Your task to perform on an android device: change timer sound Image 0: 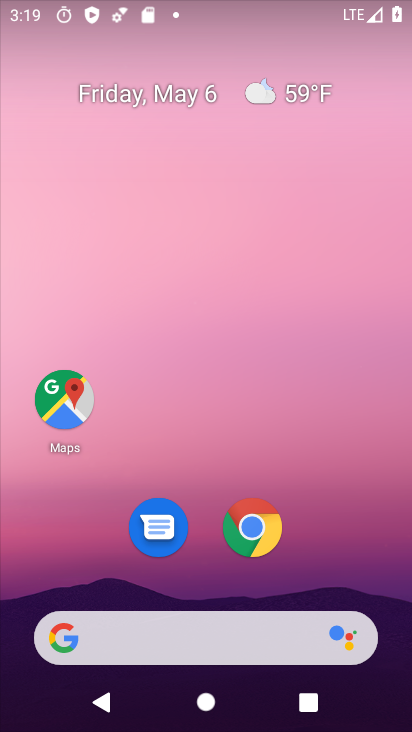
Step 0: drag from (309, 527) to (260, 169)
Your task to perform on an android device: change timer sound Image 1: 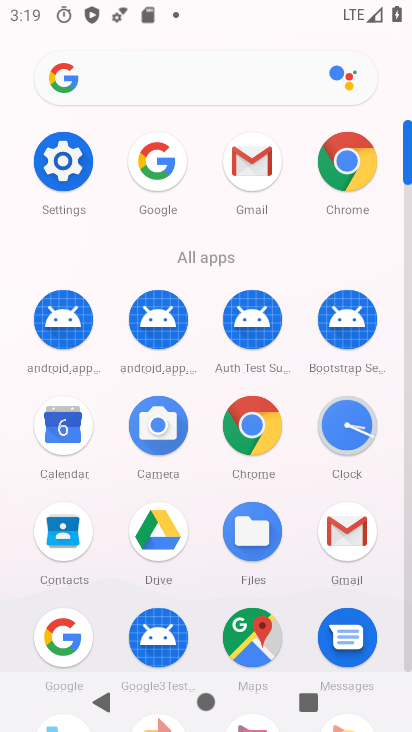
Step 1: click (346, 438)
Your task to perform on an android device: change timer sound Image 2: 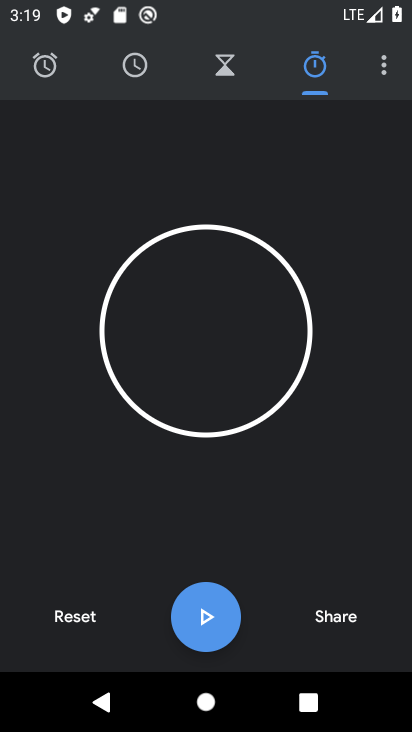
Step 2: click (387, 72)
Your task to perform on an android device: change timer sound Image 3: 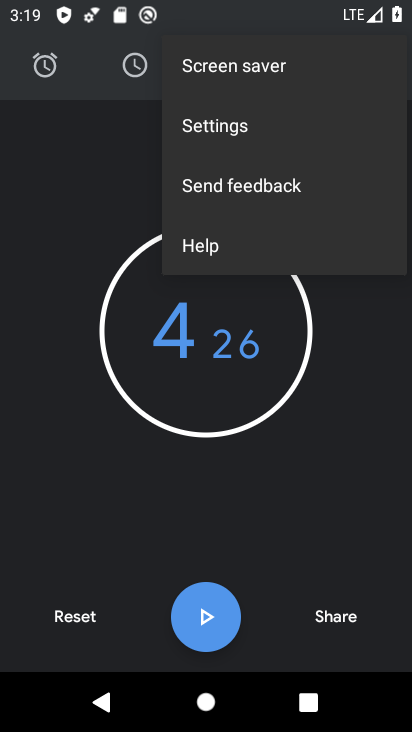
Step 3: click (211, 135)
Your task to perform on an android device: change timer sound Image 4: 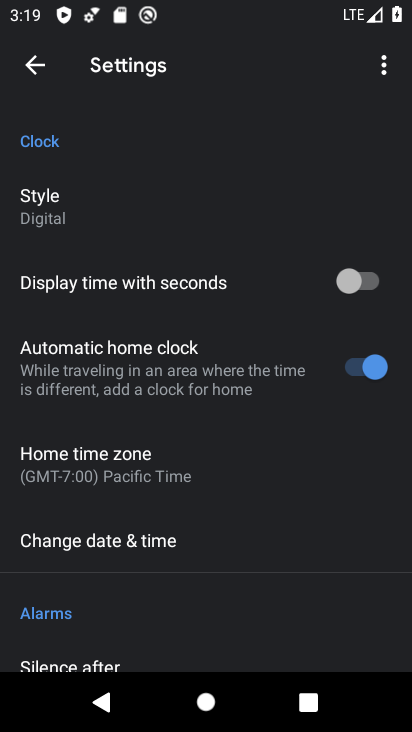
Step 4: drag from (241, 572) to (223, 169)
Your task to perform on an android device: change timer sound Image 5: 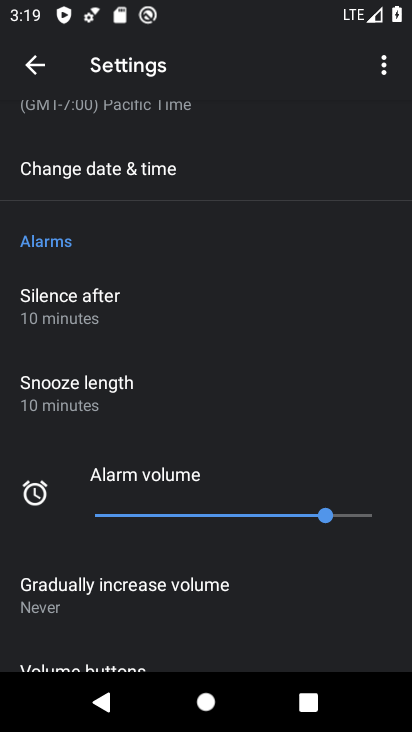
Step 5: drag from (238, 563) to (237, 159)
Your task to perform on an android device: change timer sound Image 6: 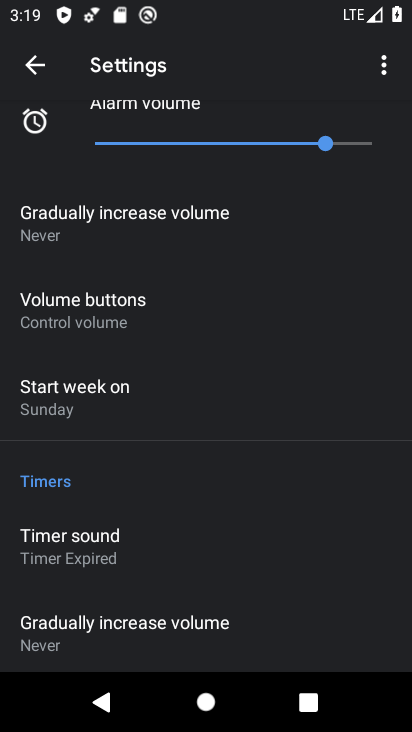
Step 6: drag from (213, 659) to (192, 544)
Your task to perform on an android device: change timer sound Image 7: 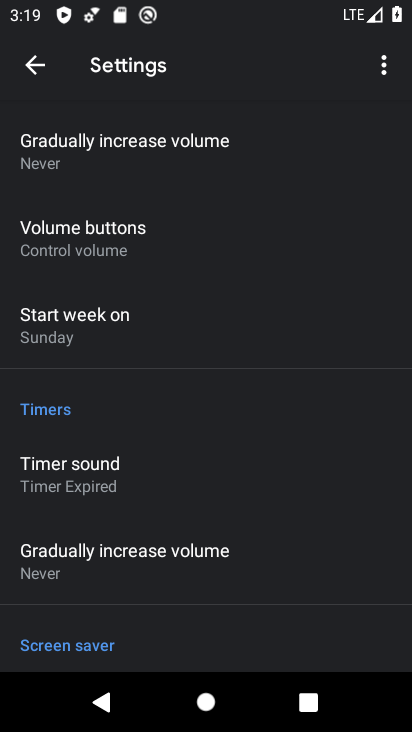
Step 7: click (106, 481)
Your task to perform on an android device: change timer sound Image 8: 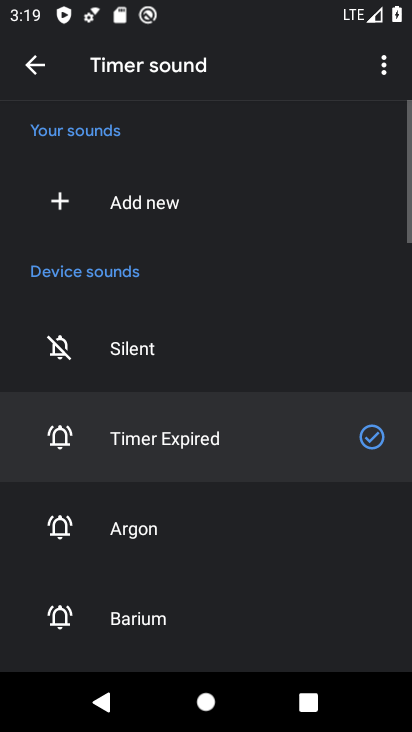
Step 8: click (140, 578)
Your task to perform on an android device: change timer sound Image 9: 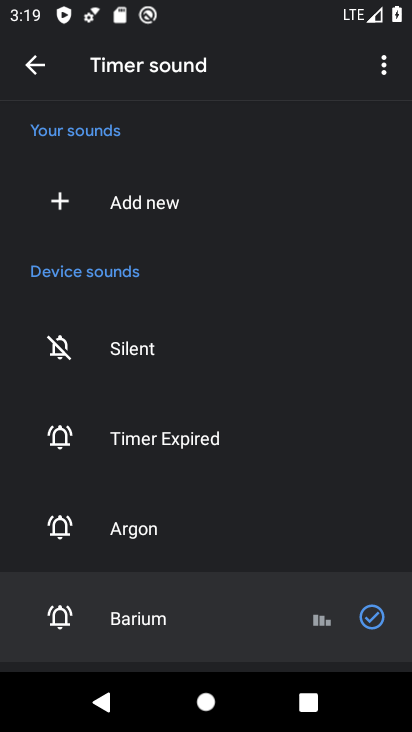
Step 9: task complete